Your task to perform on an android device: change your default location settings in chrome Image 0: 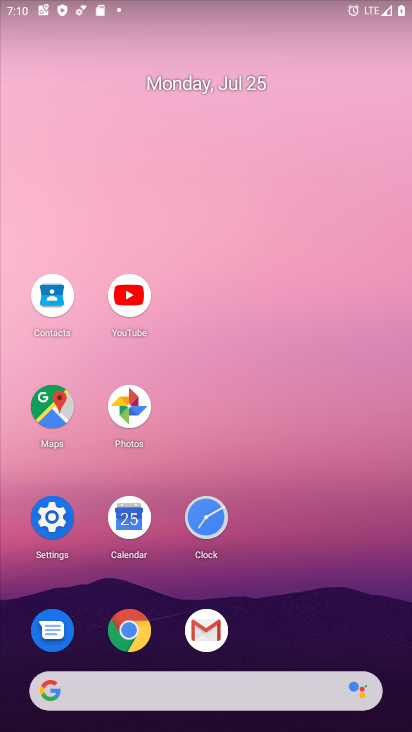
Step 0: click (128, 635)
Your task to perform on an android device: change your default location settings in chrome Image 1: 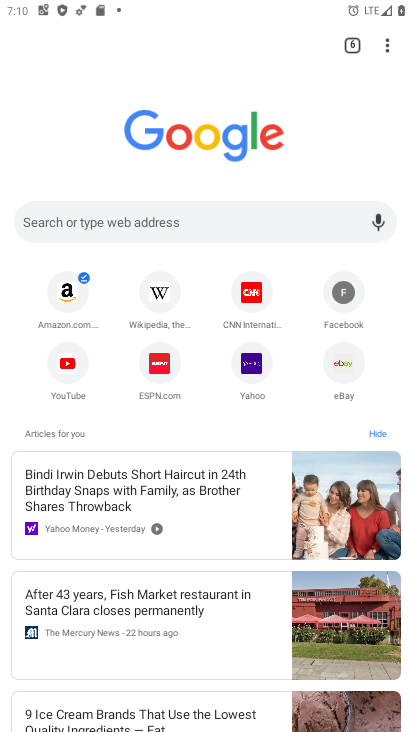
Step 1: click (385, 41)
Your task to perform on an android device: change your default location settings in chrome Image 2: 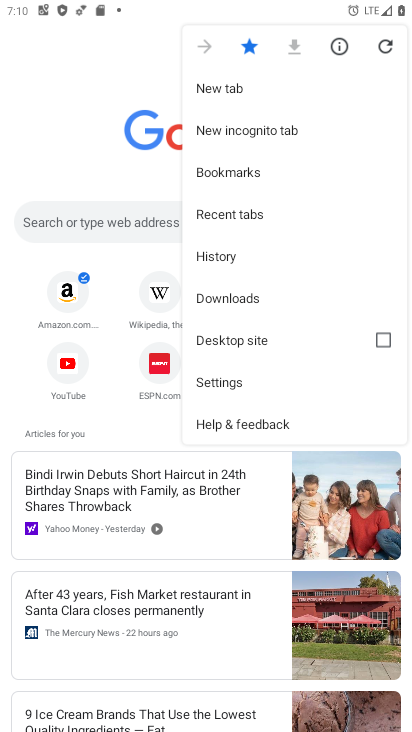
Step 2: click (212, 387)
Your task to perform on an android device: change your default location settings in chrome Image 3: 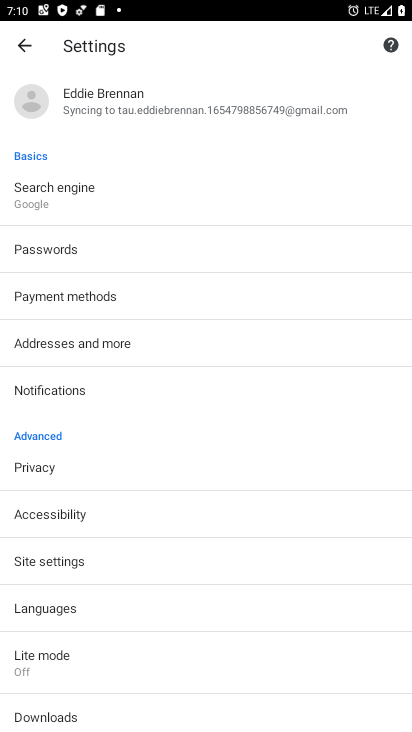
Step 3: click (56, 562)
Your task to perform on an android device: change your default location settings in chrome Image 4: 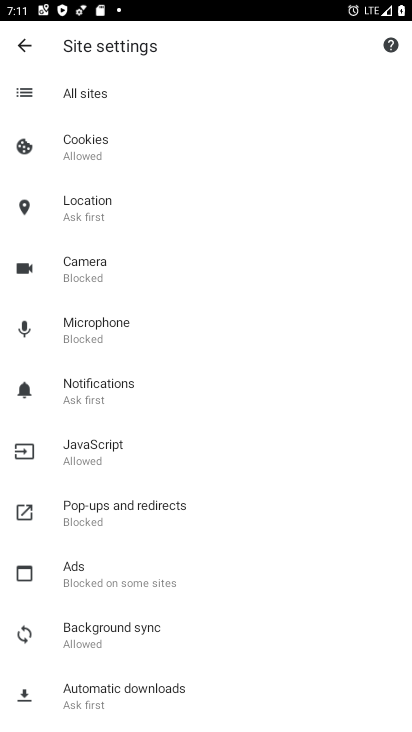
Step 4: click (79, 210)
Your task to perform on an android device: change your default location settings in chrome Image 5: 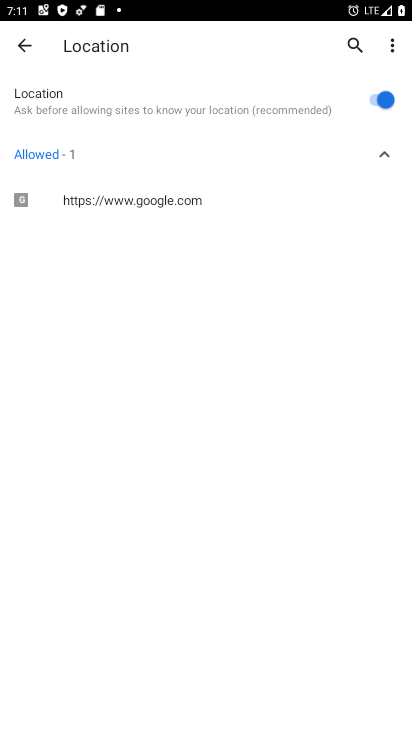
Step 5: click (381, 105)
Your task to perform on an android device: change your default location settings in chrome Image 6: 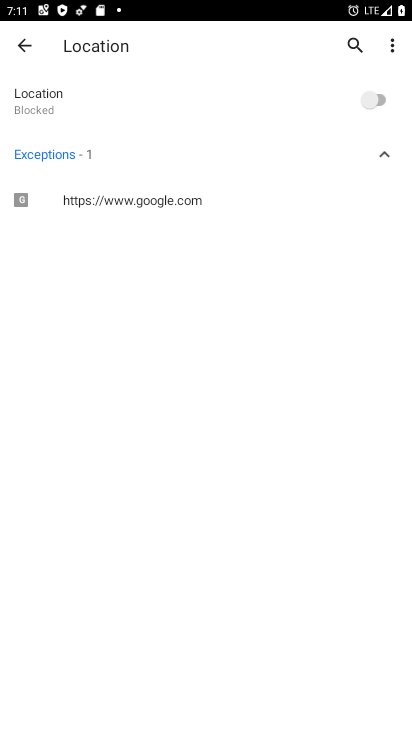
Step 6: task complete